Your task to perform on an android device: change the clock display to digital Image 0: 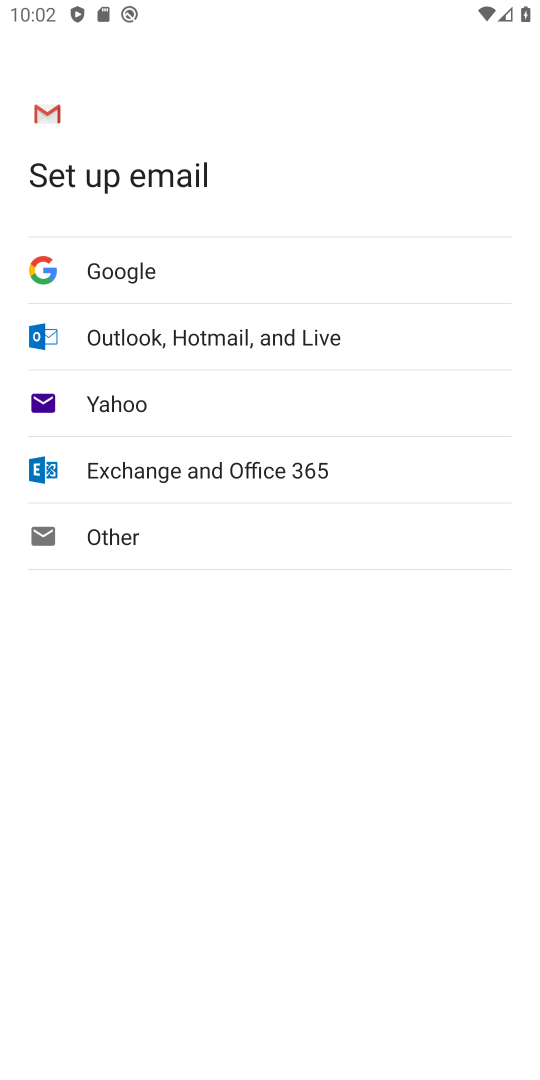
Step 0: press home button
Your task to perform on an android device: change the clock display to digital Image 1: 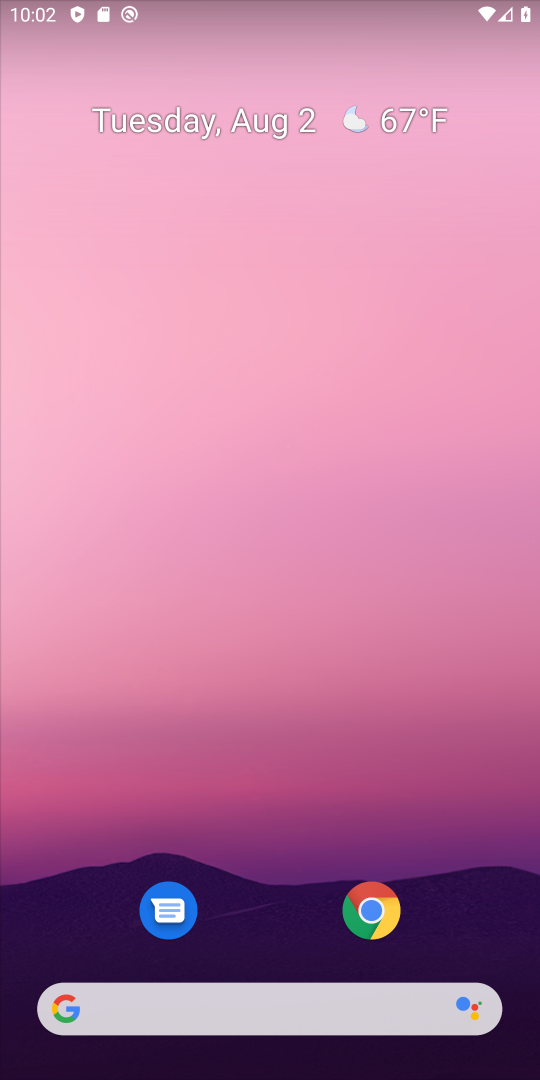
Step 1: drag from (249, 918) to (238, 366)
Your task to perform on an android device: change the clock display to digital Image 2: 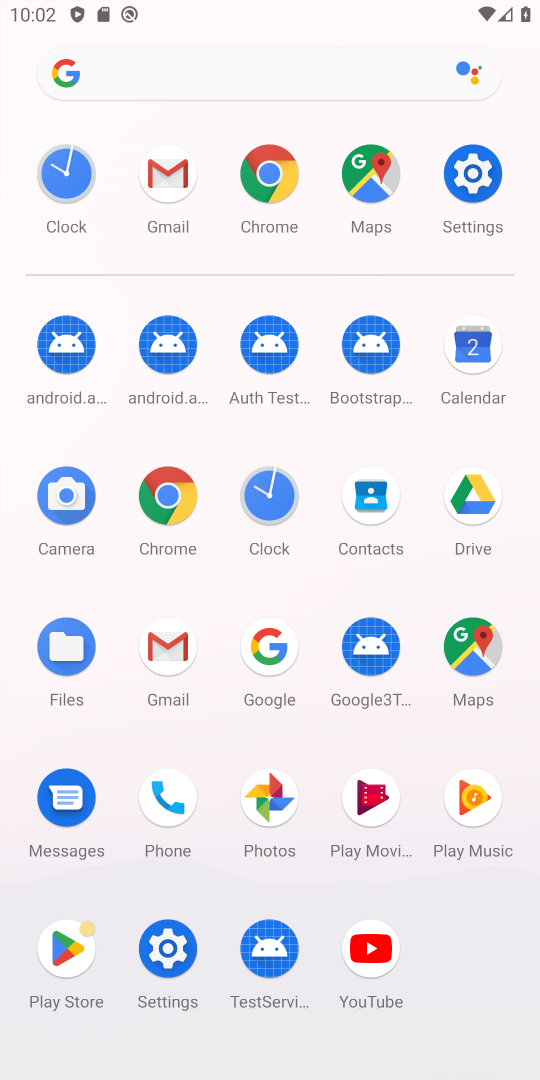
Step 2: click (264, 503)
Your task to perform on an android device: change the clock display to digital Image 3: 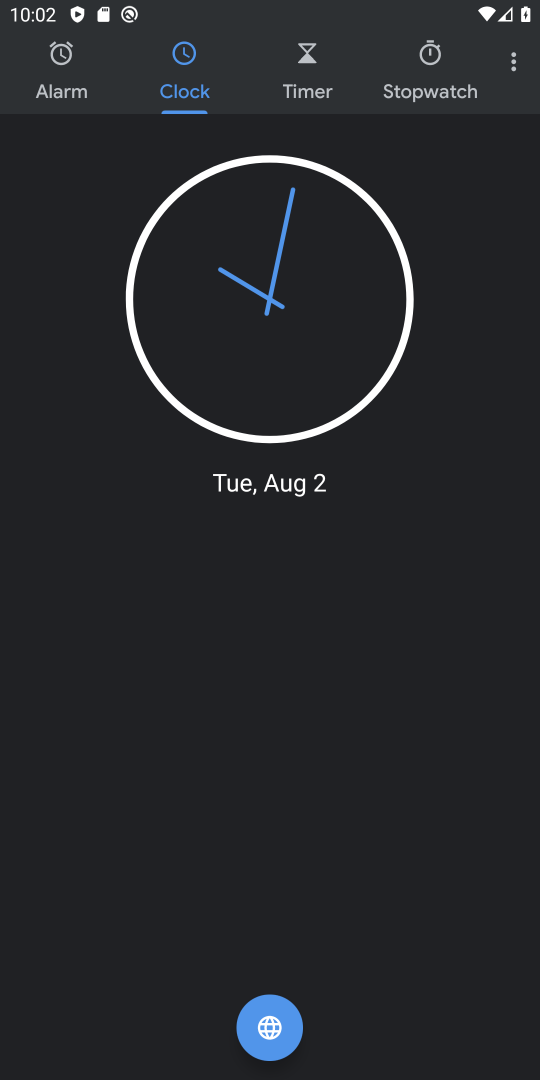
Step 3: click (526, 60)
Your task to perform on an android device: change the clock display to digital Image 4: 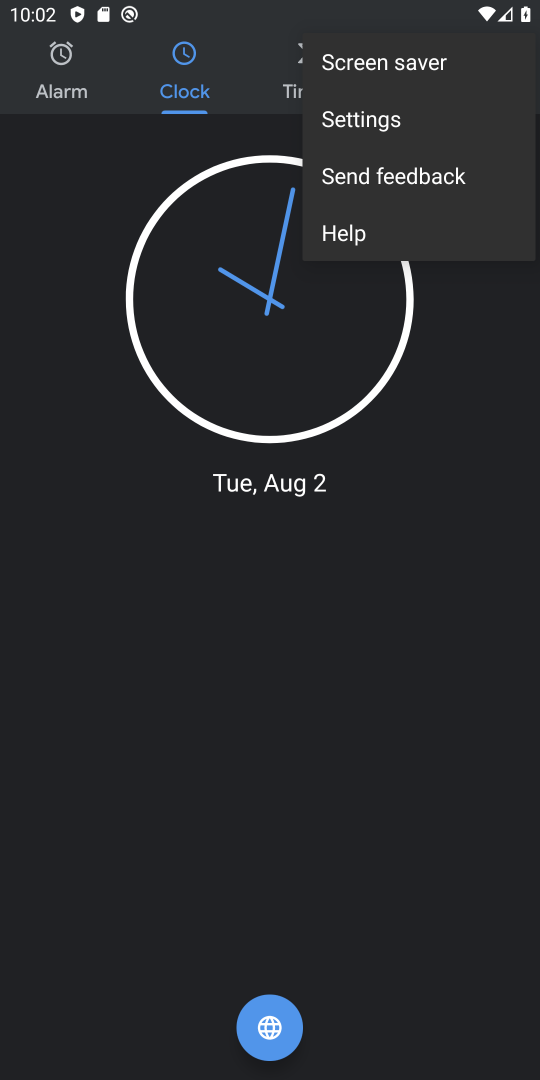
Step 4: click (419, 120)
Your task to perform on an android device: change the clock display to digital Image 5: 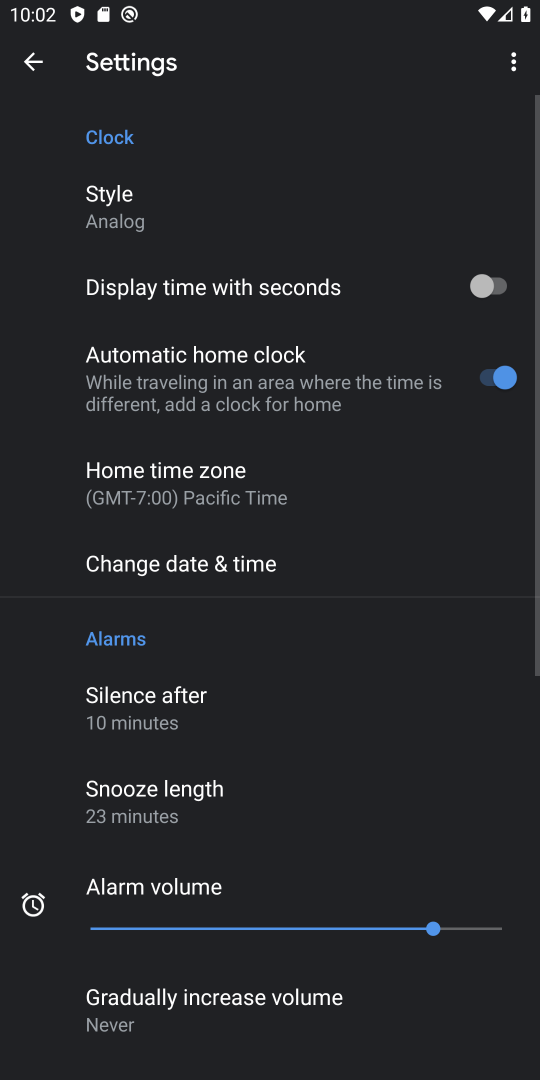
Step 5: click (156, 223)
Your task to perform on an android device: change the clock display to digital Image 6: 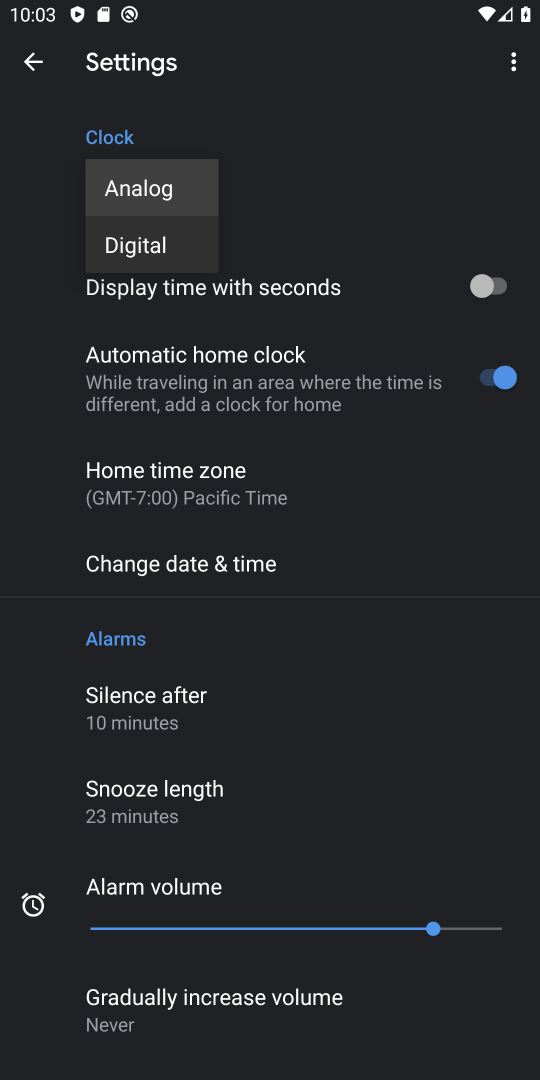
Step 6: click (144, 231)
Your task to perform on an android device: change the clock display to digital Image 7: 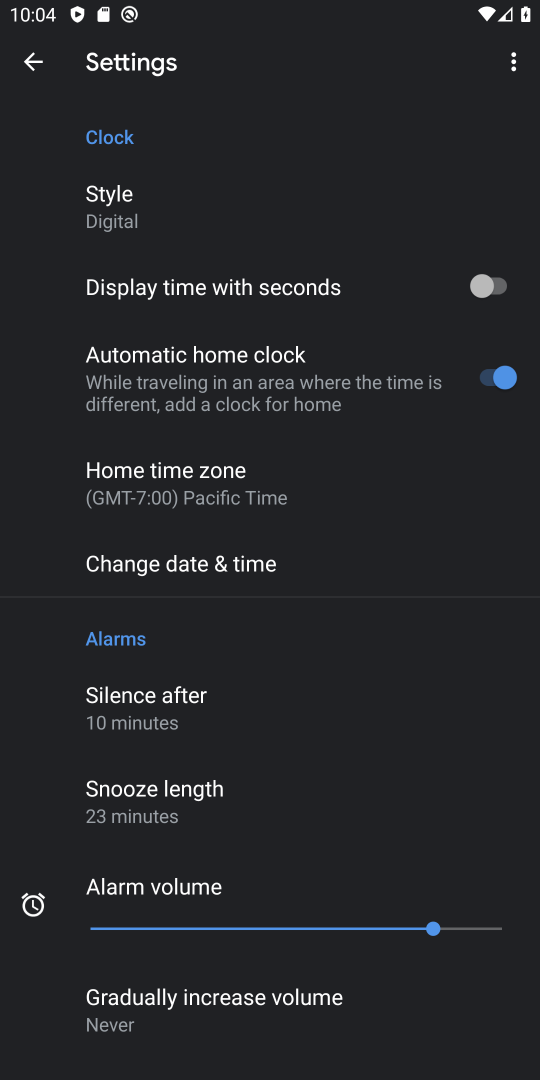
Step 7: task complete